Your task to perform on an android device: Open Youtube and go to the subscriptions tab Image 0: 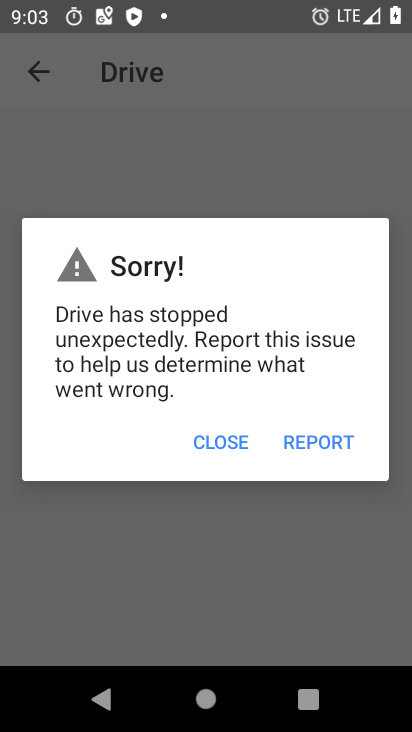
Step 0: press home button
Your task to perform on an android device: Open Youtube and go to the subscriptions tab Image 1: 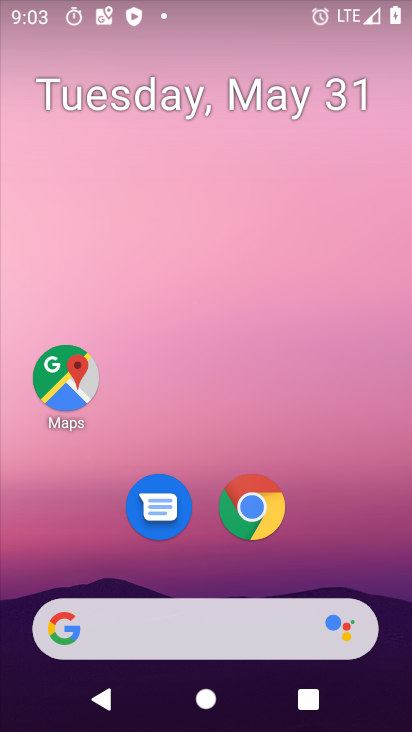
Step 1: drag from (39, 496) to (167, 186)
Your task to perform on an android device: Open Youtube and go to the subscriptions tab Image 2: 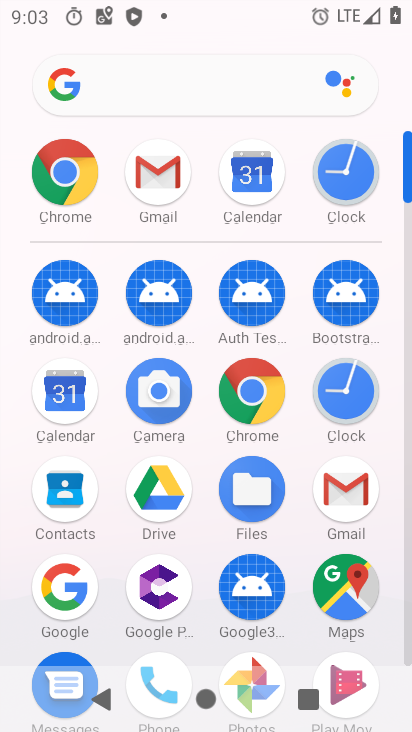
Step 2: drag from (6, 452) to (185, 190)
Your task to perform on an android device: Open Youtube and go to the subscriptions tab Image 3: 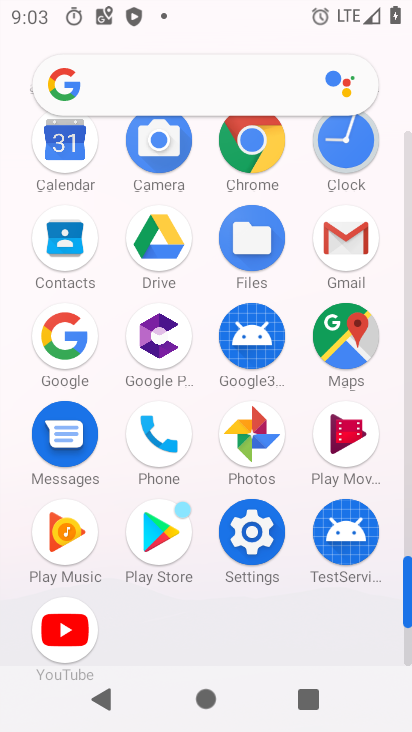
Step 3: click (68, 617)
Your task to perform on an android device: Open Youtube and go to the subscriptions tab Image 4: 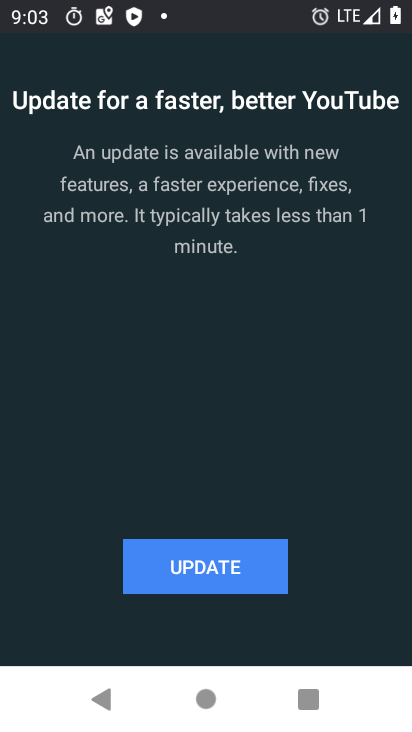
Step 4: press home button
Your task to perform on an android device: Open Youtube and go to the subscriptions tab Image 5: 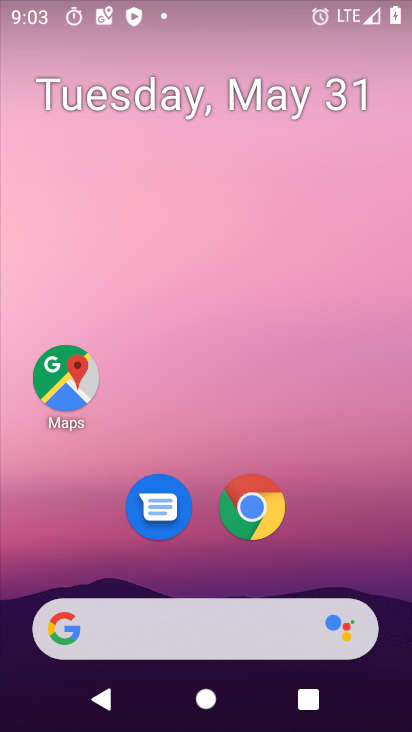
Step 5: drag from (20, 615) to (267, 151)
Your task to perform on an android device: Open Youtube and go to the subscriptions tab Image 6: 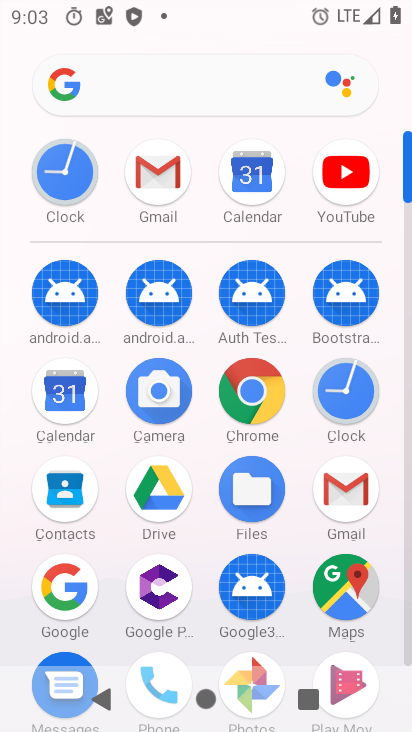
Step 6: drag from (31, 479) to (263, 170)
Your task to perform on an android device: Open Youtube and go to the subscriptions tab Image 7: 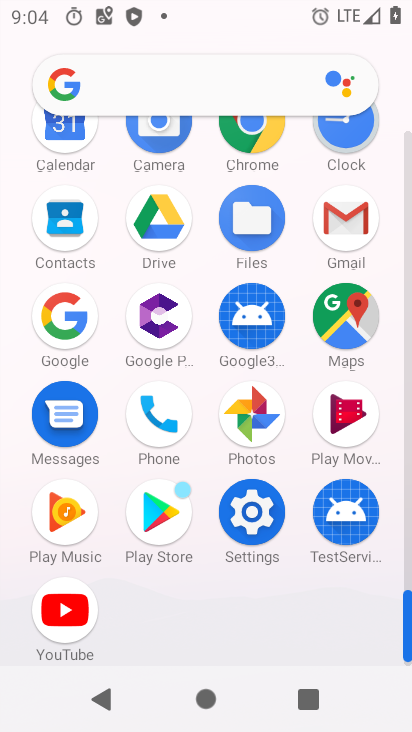
Step 7: click (51, 634)
Your task to perform on an android device: Open Youtube and go to the subscriptions tab Image 8: 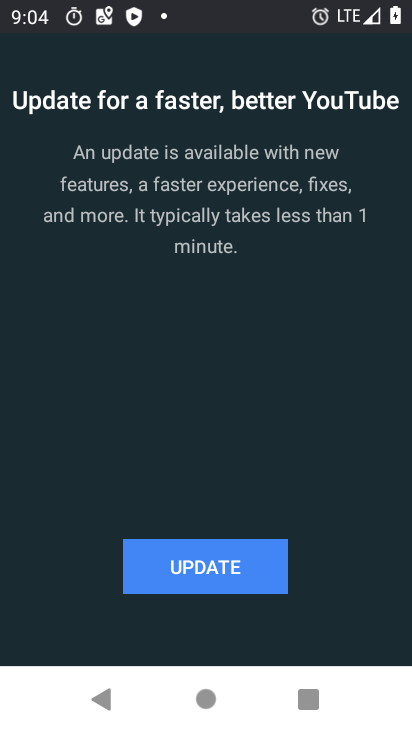
Step 8: task complete